Your task to perform on an android device: visit the assistant section in the google photos Image 0: 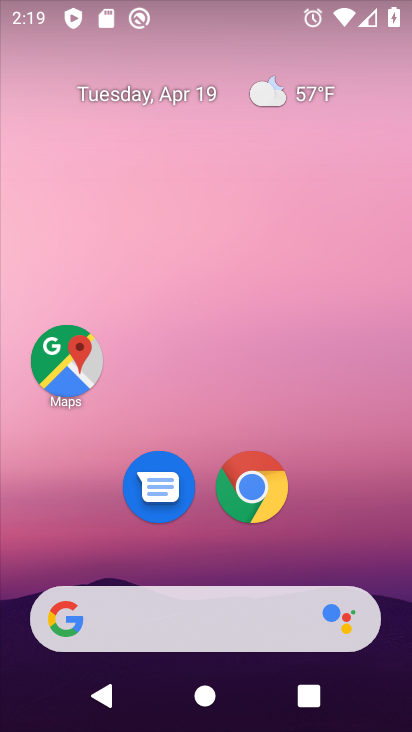
Step 0: drag from (389, 520) to (369, 84)
Your task to perform on an android device: visit the assistant section in the google photos Image 1: 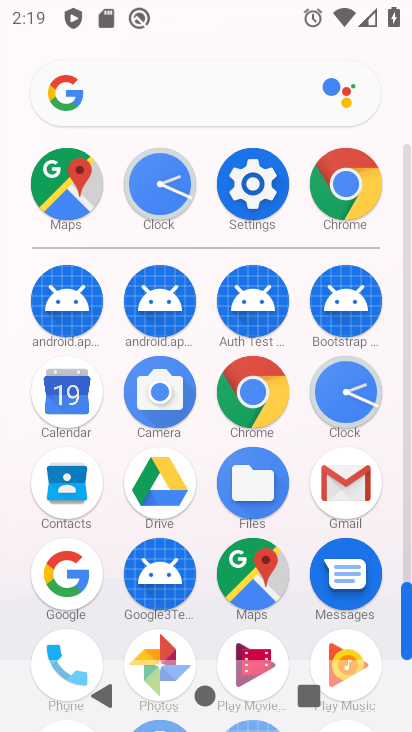
Step 1: click (163, 657)
Your task to perform on an android device: visit the assistant section in the google photos Image 2: 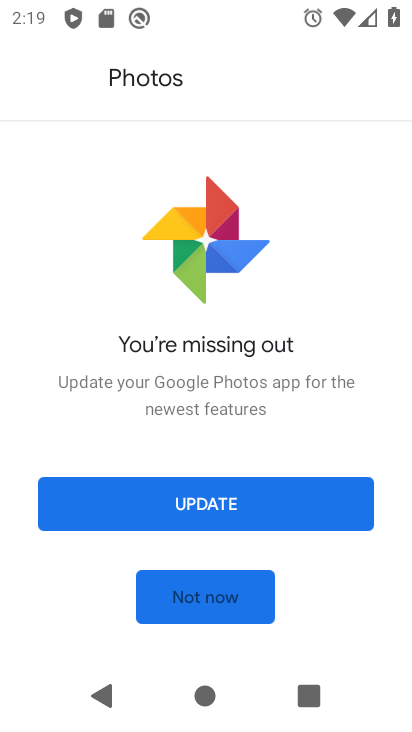
Step 2: click (239, 501)
Your task to perform on an android device: visit the assistant section in the google photos Image 3: 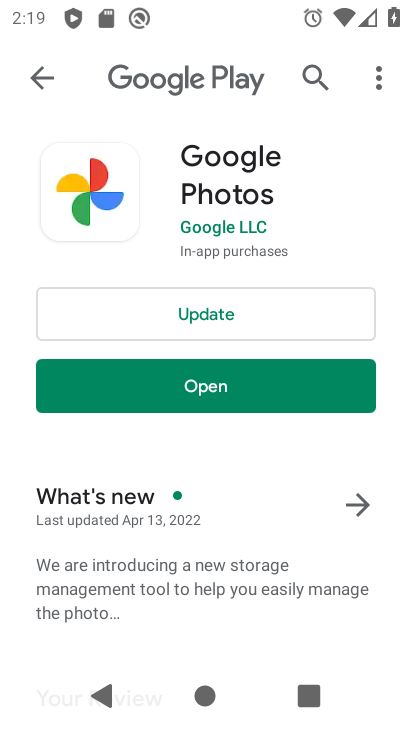
Step 3: click (231, 309)
Your task to perform on an android device: visit the assistant section in the google photos Image 4: 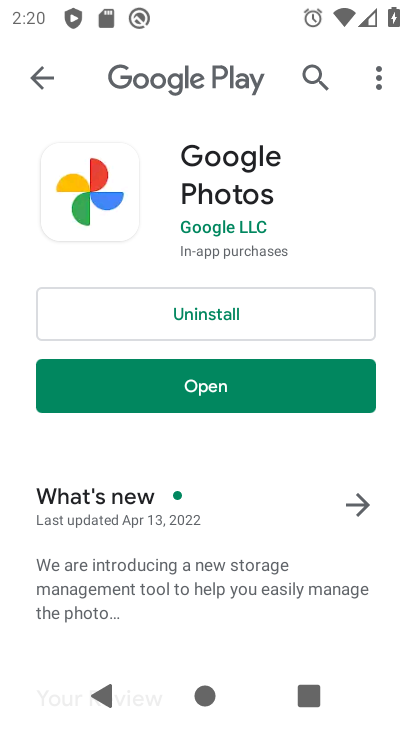
Step 4: click (292, 391)
Your task to perform on an android device: visit the assistant section in the google photos Image 5: 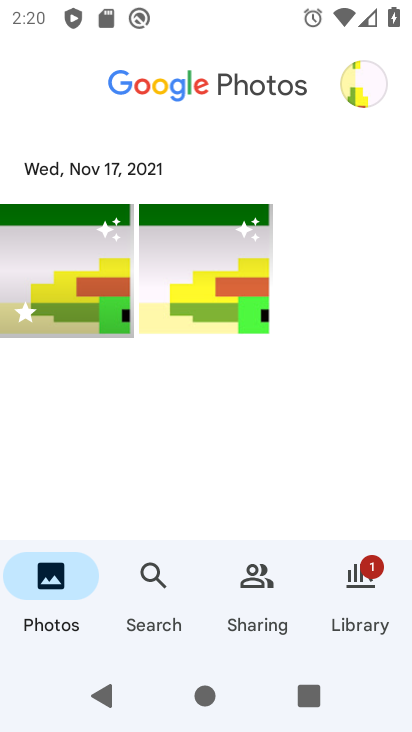
Step 5: click (357, 584)
Your task to perform on an android device: visit the assistant section in the google photos Image 6: 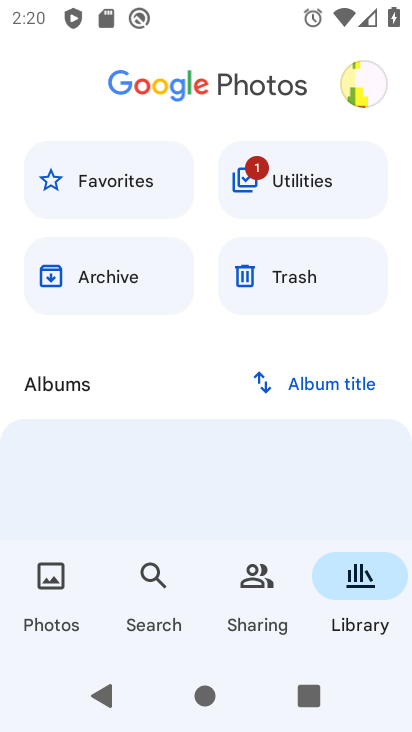
Step 6: task complete